Your task to perform on an android device: What's the price of the Vizio TV? Image 0: 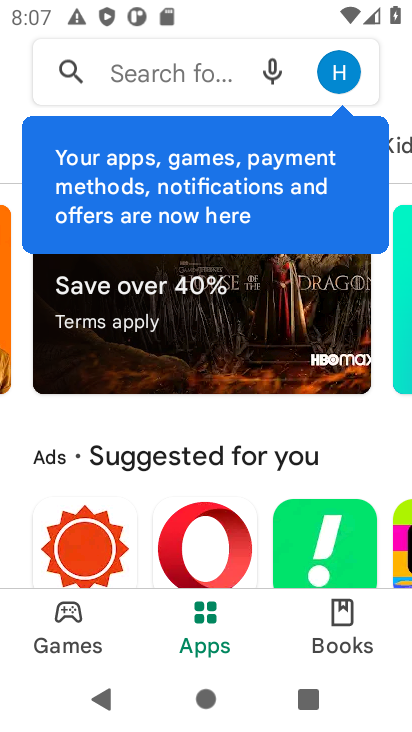
Step 0: press home button
Your task to perform on an android device: What's the price of the Vizio TV? Image 1: 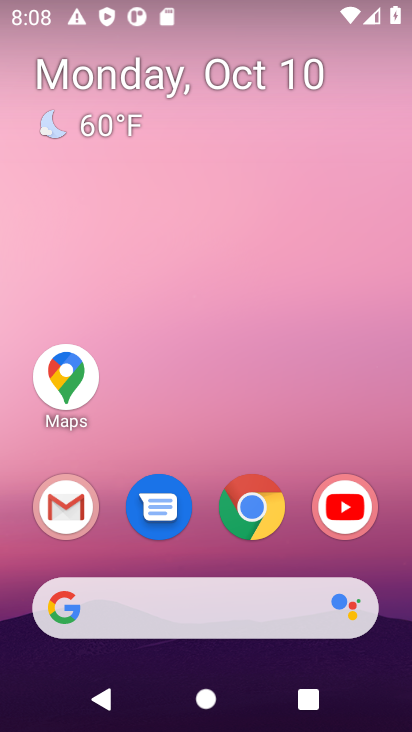
Step 1: click (164, 606)
Your task to perform on an android device: What's the price of the Vizio TV? Image 2: 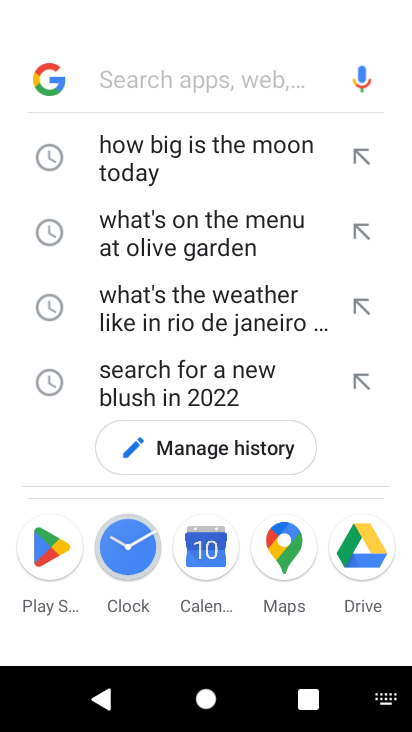
Step 2: click (143, 82)
Your task to perform on an android device: What's the price of the Vizio TV? Image 3: 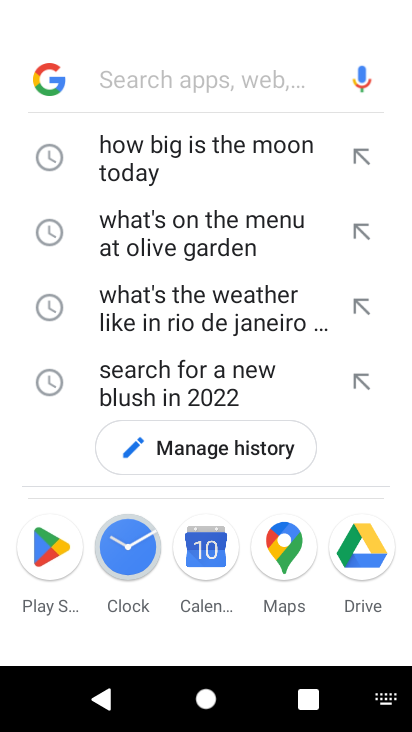
Step 3: type "What's the price of the Vizio TV?"
Your task to perform on an android device: What's the price of the Vizio TV? Image 4: 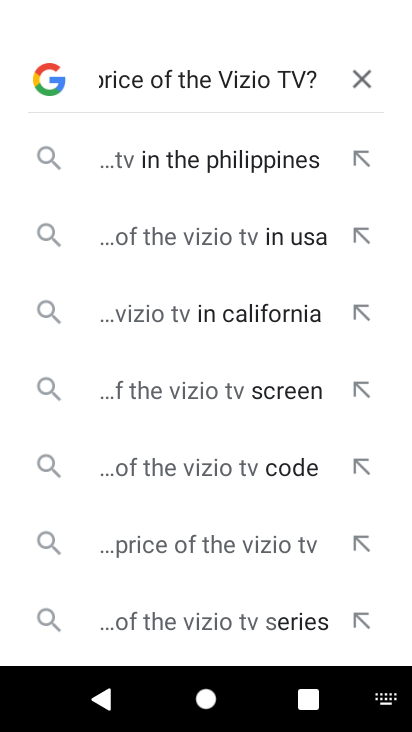
Step 4: click (168, 402)
Your task to perform on an android device: What's the price of the Vizio TV? Image 5: 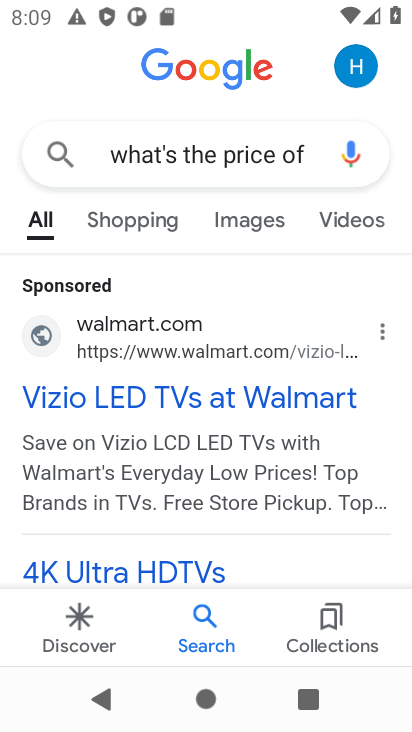
Step 5: task complete